Your task to perform on an android device: Open Android settings Image 0: 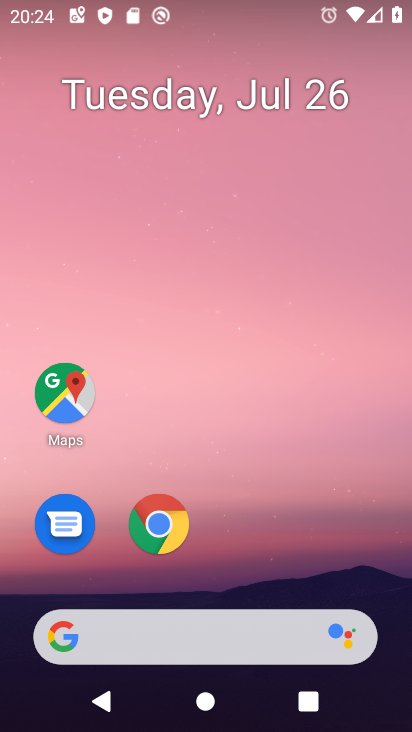
Step 0: drag from (266, 541) to (285, 13)
Your task to perform on an android device: Open Android settings Image 1: 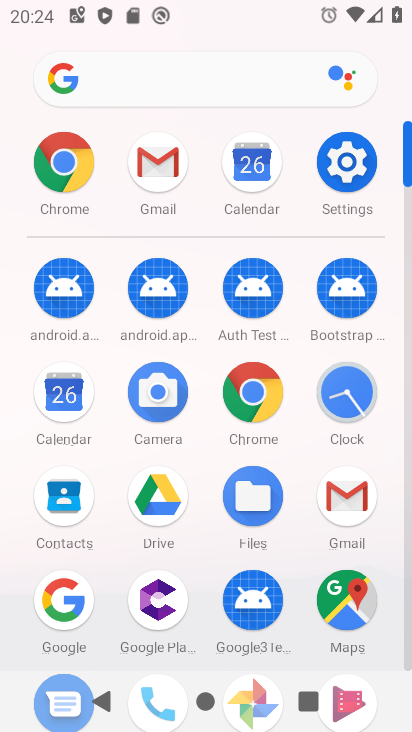
Step 1: click (339, 159)
Your task to perform on an android device: Open Android settings Image 2: 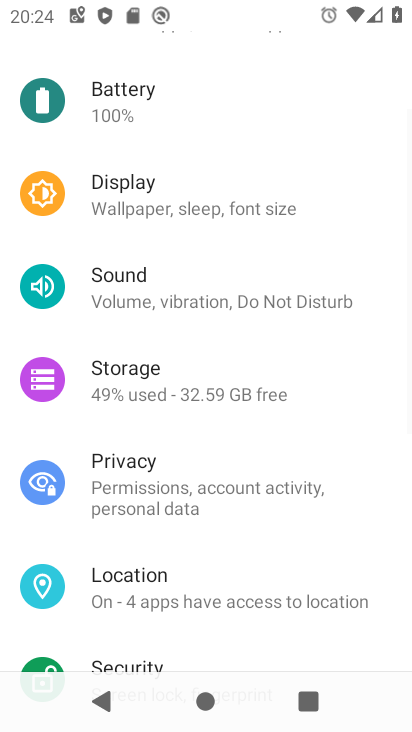
Step 2: drag from (248, 512) to (248, 73)
Your task to perform on an android device: Open Android settings Image 3: 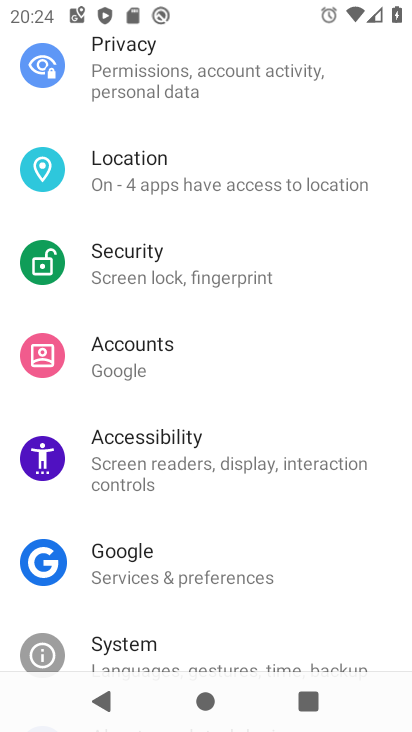
Step 3: drag from (252, 405) to (238, 28)
Your task to perform on an android device: Open Android settings Image 4: 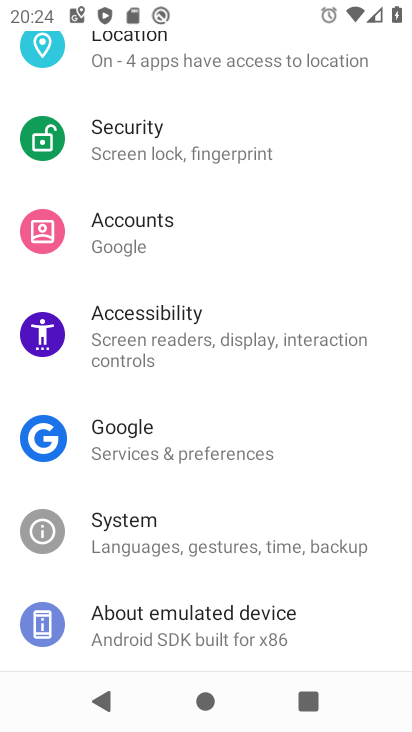
Step 4: click (224, 610)
Your task to perform on an android device: Open Android settings Image 5: 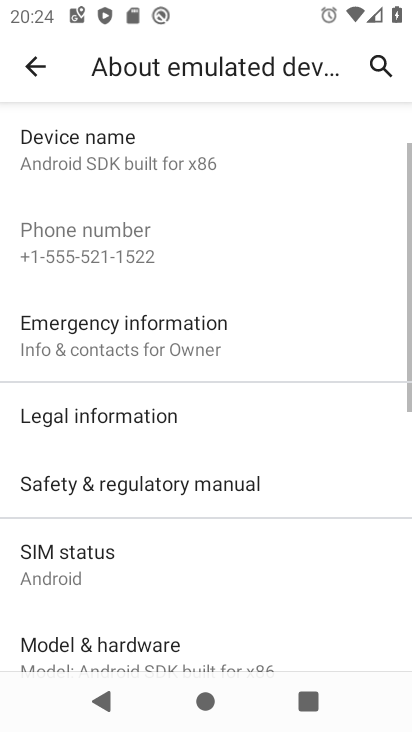
Step 5: task complete